Your task to perform on an android device: Open Android settings Image 0: 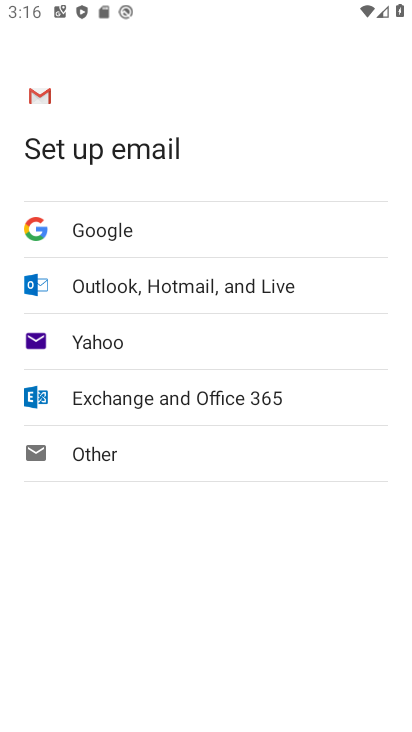
Step 0: press back button
Your task to perform on an android device: Open Android settings Image 1: 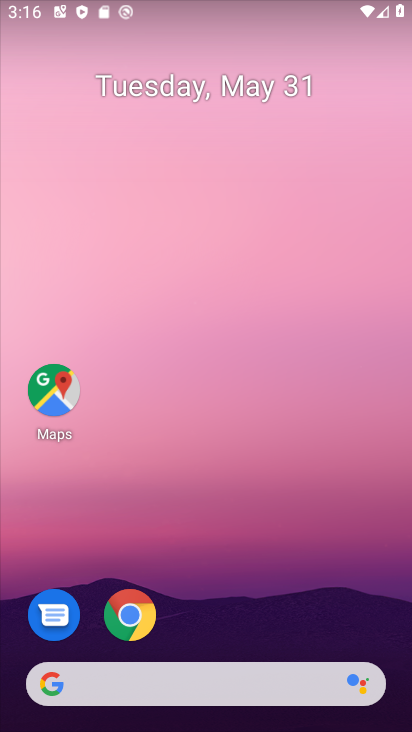
Step 1: drag from (234, 705) to (127, 109)
Your task to perform on an android device: Open Android settings Image 2: 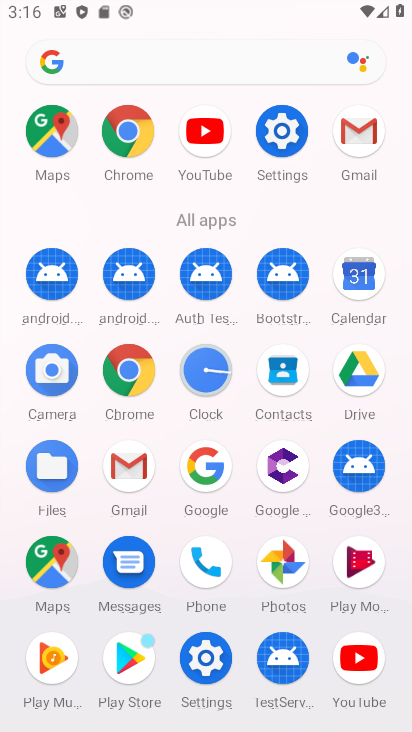
Step 2: click (282, 133)
Your task to perform on an android device: Open Android settings Image 3: 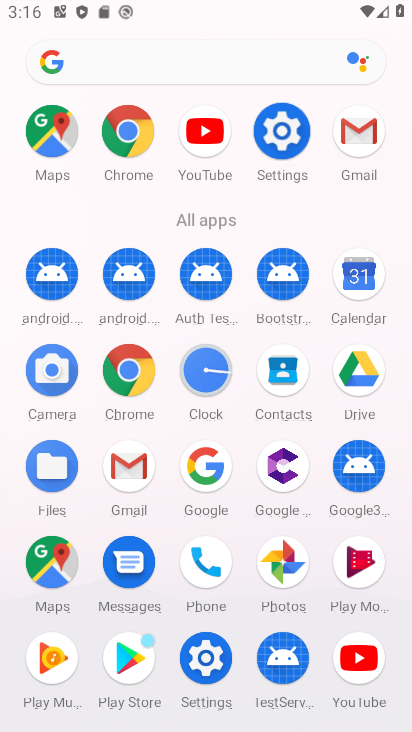
Step 3: click (282, 133)
Your task to perform on an android device: Open Android settings Image 4: 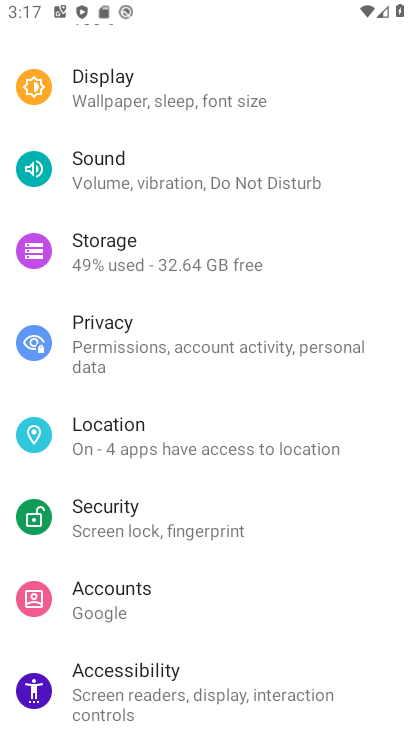
Step 4: drag from (188, 576) to (116, 112)
Your task to perform on an android device: Open Android settings Image 5: 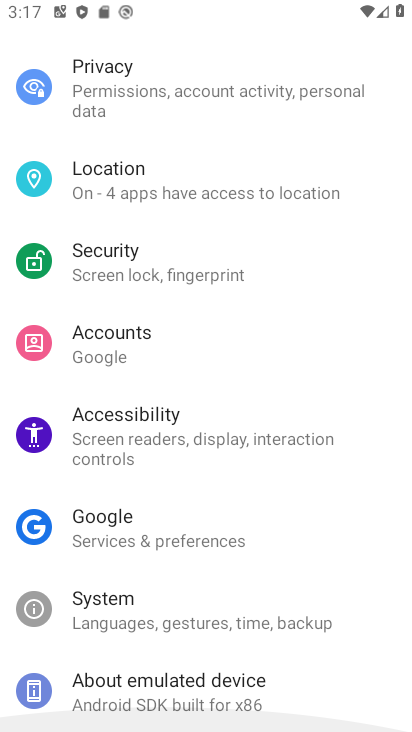
Step 5: drag from (180, 510) to (98, 125)
Your task to perform on an android device: Open Android settings Image 6: 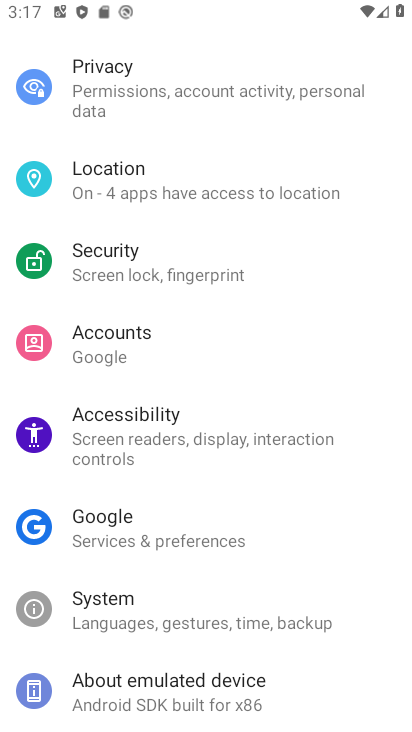
Step 6: drag from (160, 581) to (131, 185)
Your task to perform on an android device: Open Android settings Image 7: 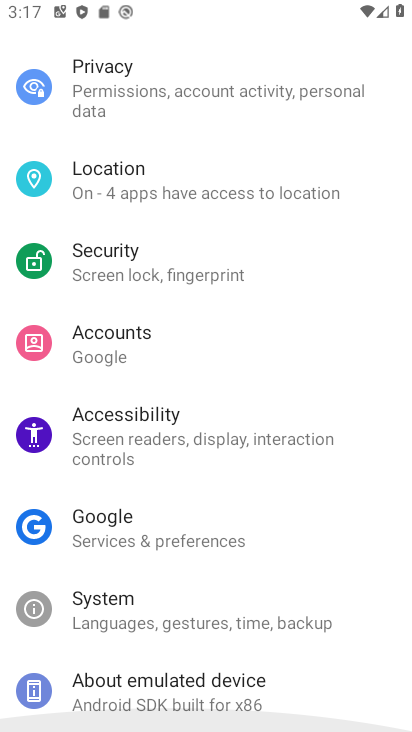
Step 7: drag from (124, 457) to (77, 86)
Your task to perform on an android device: Open Android settings Image 8: 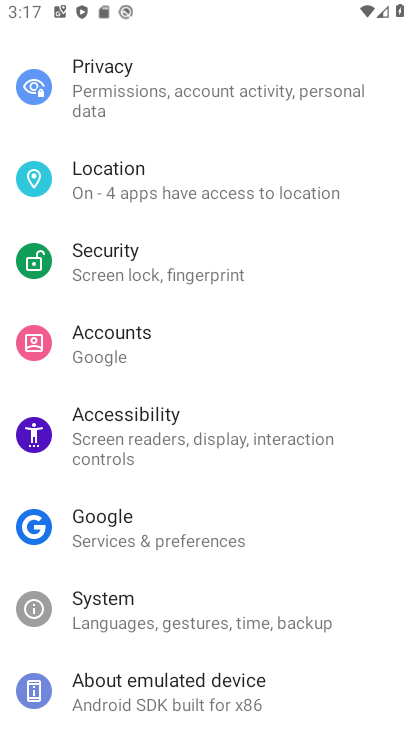
Step 8: click (163, 695)
Your task to perform on an android device: Open Android settings Image 9: 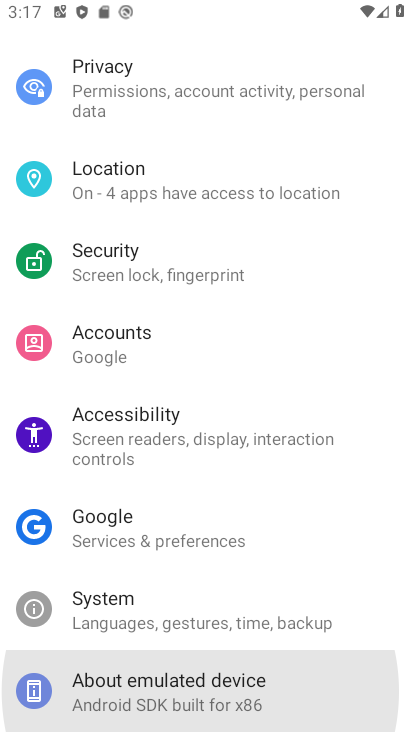
Step 9: click (166, 692)
Your task to perform on an android device: Open Android settings Image 10: 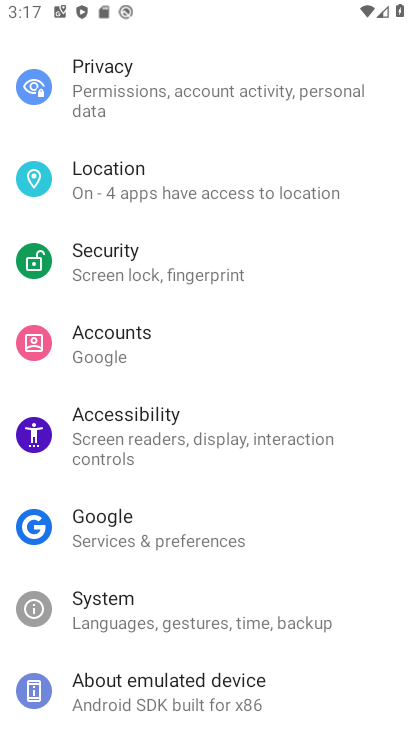
Step 10: click (166, 692)
Your task to perform on an android device: Open Android settings Image 11: 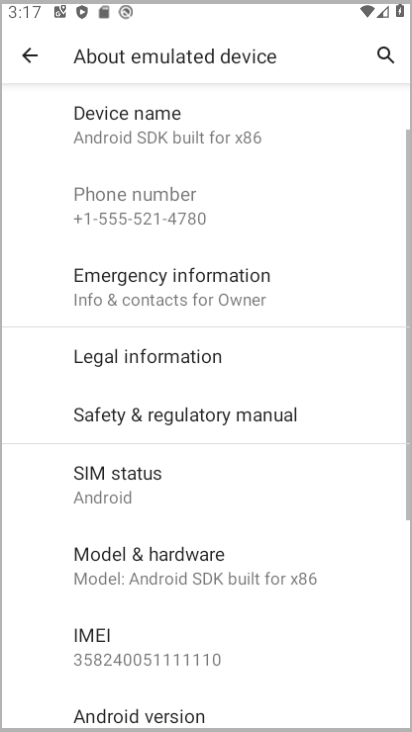
Step 11: click (167, 692)
Your task to perform on an android device: Open Android settings Image 12: 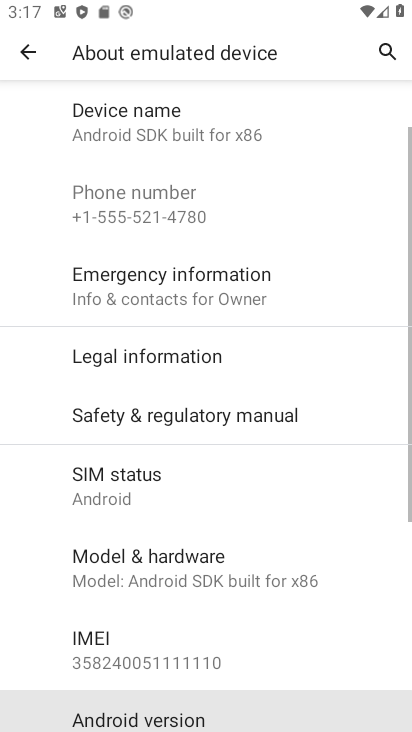
Step 12: click (167, 692)
Your task to perform on an android device: Open Android settings Image 13: 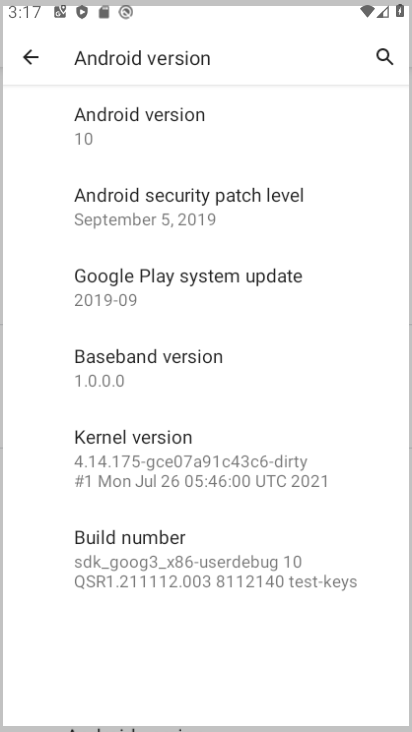
Step 13: click (167, 692)
Your task to perform on an android device: Open Android settings Image 14: 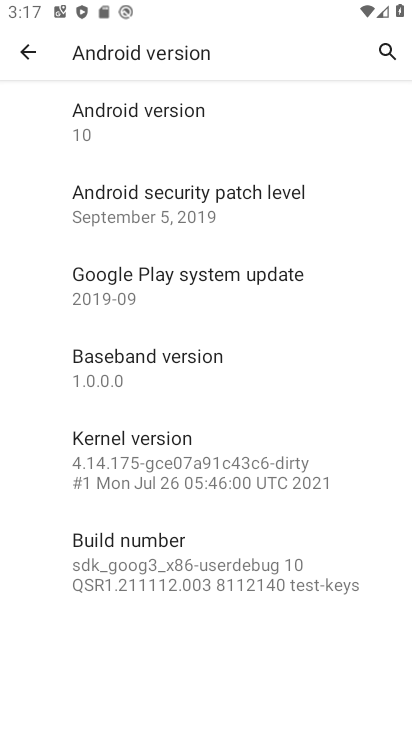
Step 14: click (169, 692)
Your task to perform on an android device: Open Android settings Image 15: 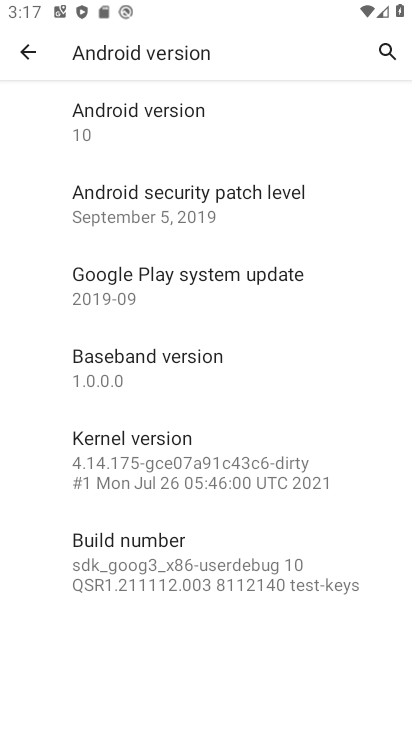
Step 15: click (23, 54)
Your task to perform on an android device: Open Android settings Image 16: 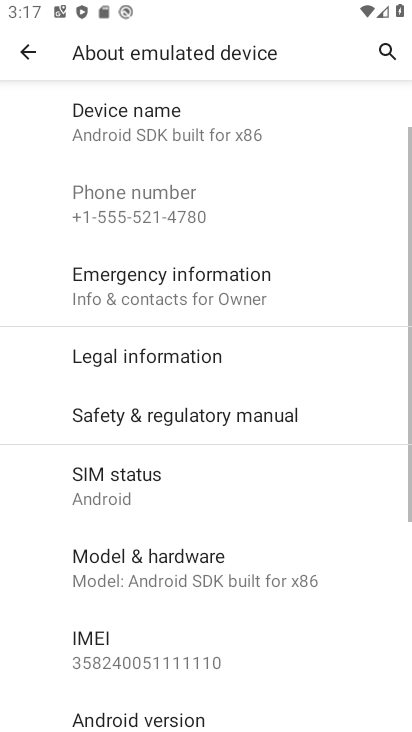
Step 16: task complete